Your task to perform on an android device: Open the web browser Image 0: 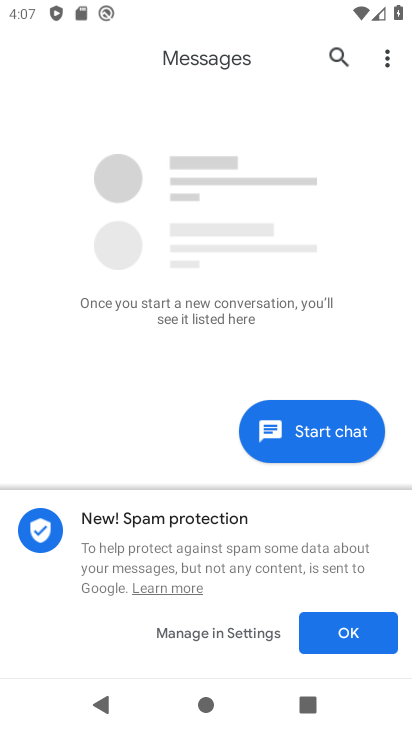
Step 0: press home button
Your task to perform on an android device: Open the web browser Image 1: 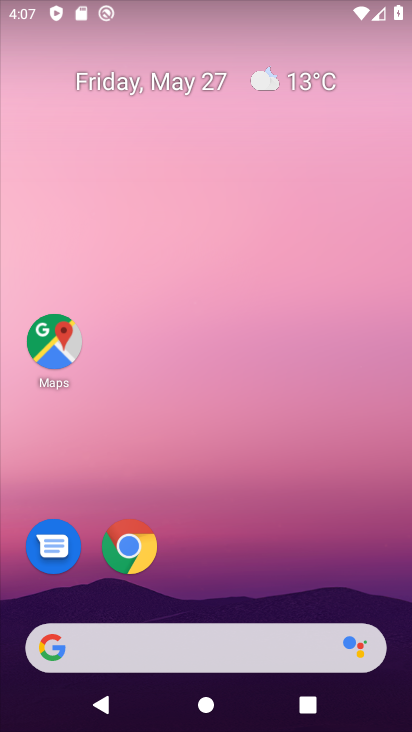
Step 1: drag from (213, 622) to (270, 133)
Your task to perform on an android device: Open the web browser Image 2: 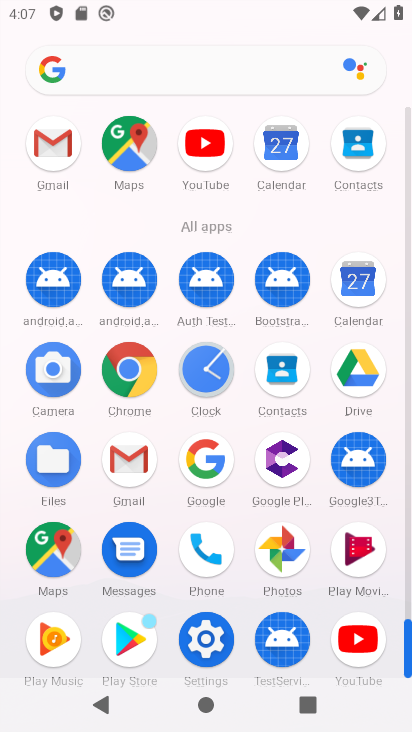
Step 2: click (217, 458)
Your task to perform on an android device: Open the web browser Image 3: 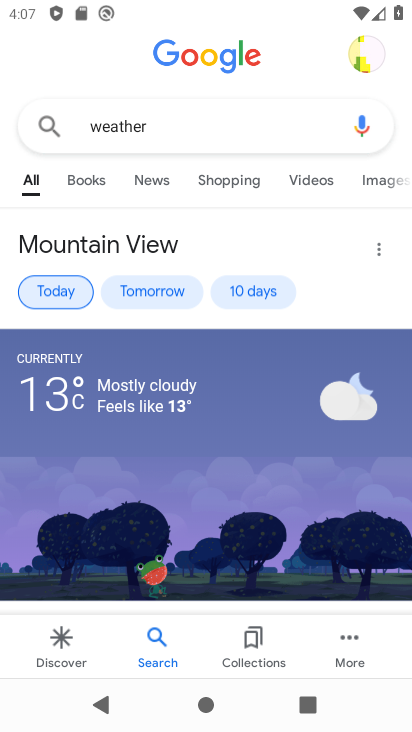
Step 3: task complete